Your task to perform on an android device: turn off priority inbox in the gmail app Image 0: 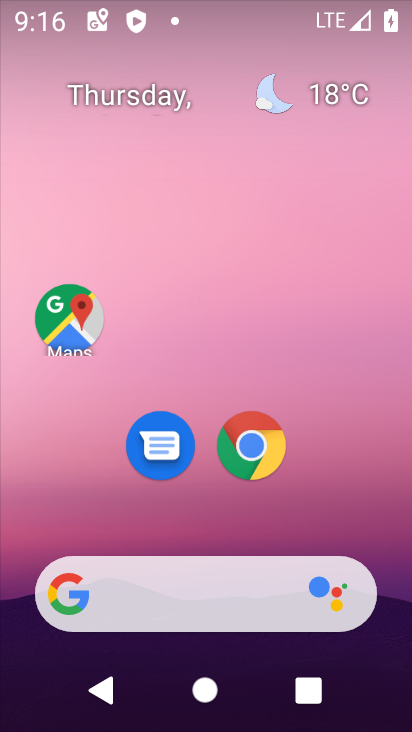
Step 0: drag from (386, 545) to (292, 170)
Your task to perform on an android device: turn off priority inbox in the gmail app Image 1: 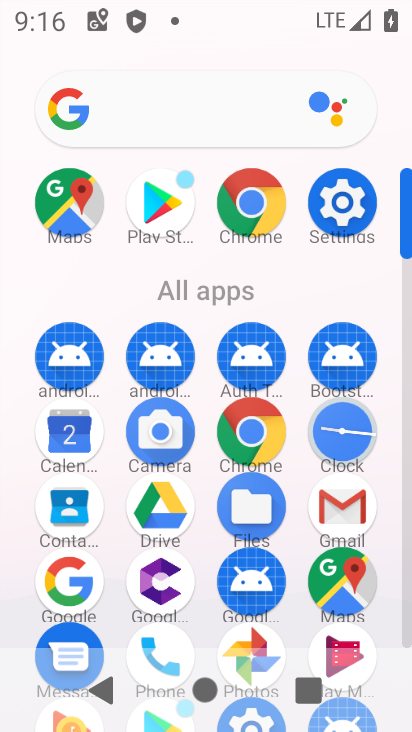
Step 1: click (333, 517)
Your task to perform on an android device: turn off priority inbox in the gmail app Image 2: 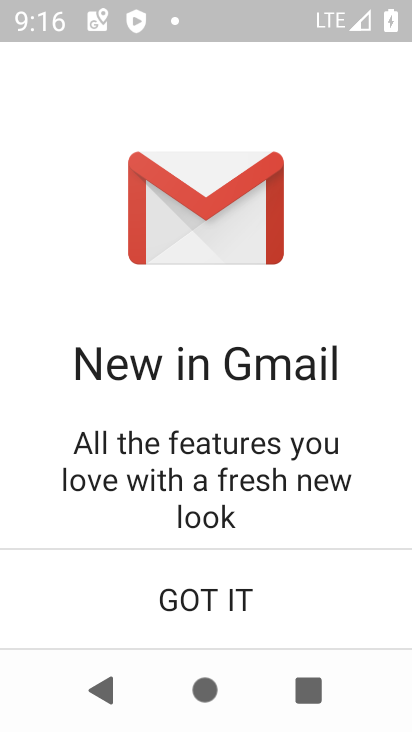
Step 2: click (207, 595)
Your task to perform on an android device: turn off priority inbox in the gmail app Image 3: 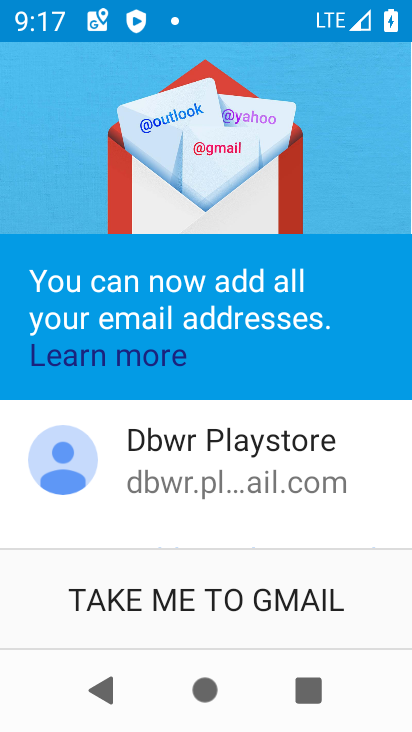
Step 3: click (208, 605)
Your task to perform on an android device: turn off priority inbox in the gmail app Image 4: 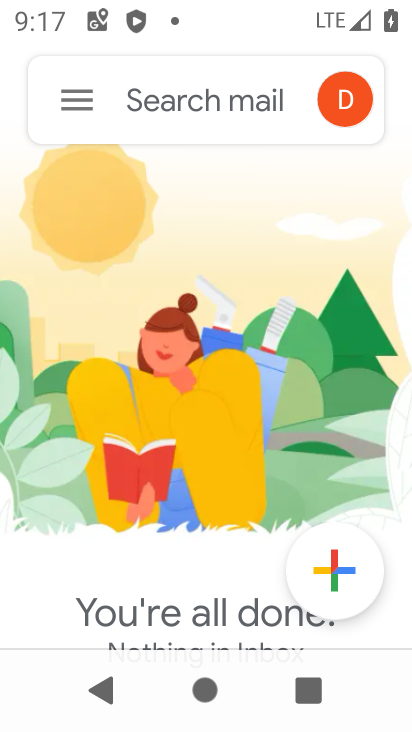
Step 4: click (77, 88)
Your task to perform on an android device: turn off priority inbox in the gmail app Image 5: 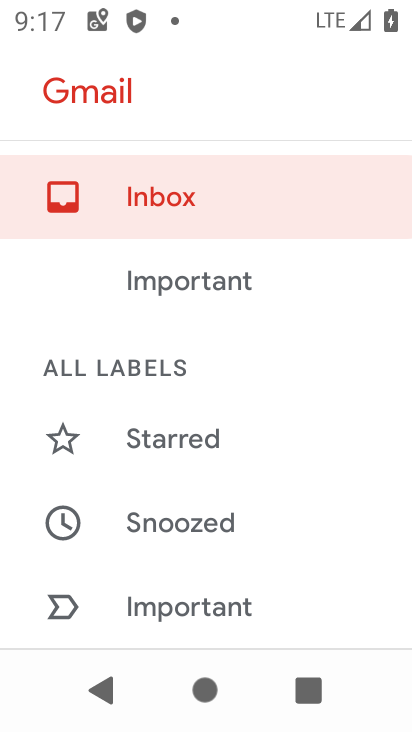
Step 5: drag from (239, 580) to (198, 189)
Your task to perform on an android device: turn off priority inbox in the gmail app Image 6: 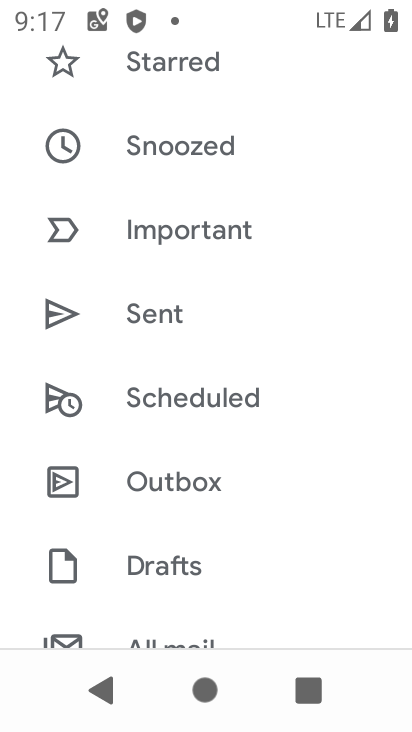
Step 6: drag from (250, 562) to (204, 211)
Your task to perform on an android device: turn off priority inbox in the gmail app Image 7: 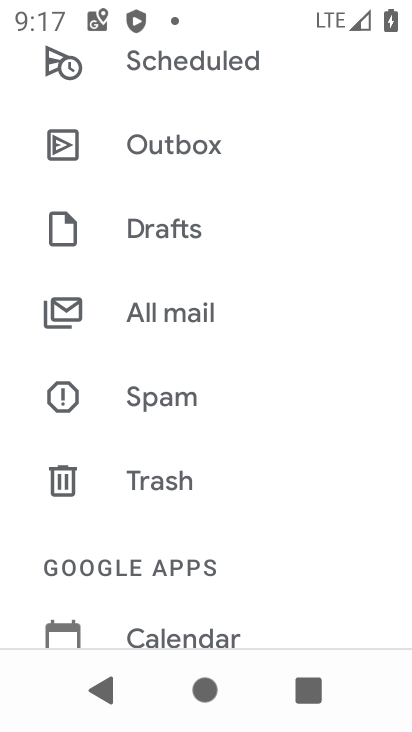
Step 7: drag from (241, 526) to (198, 222)
Your task to perform on an android device: turn off priority inbox in the gmail app Image 8: 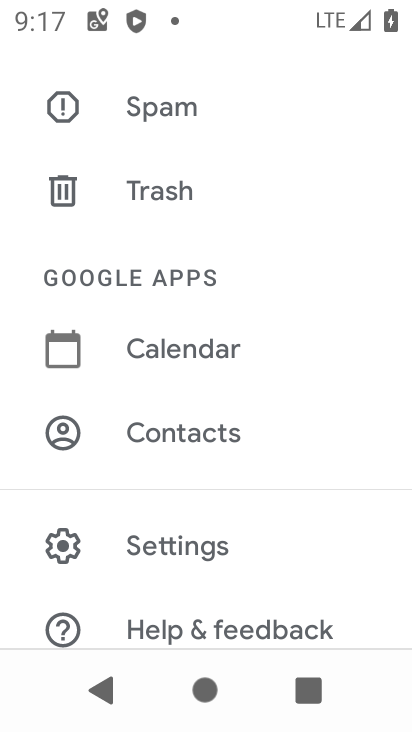
Step 8: click (186, 537)
Your task to perform on an android device: turn off priority inbox in the gmail app Image 9: 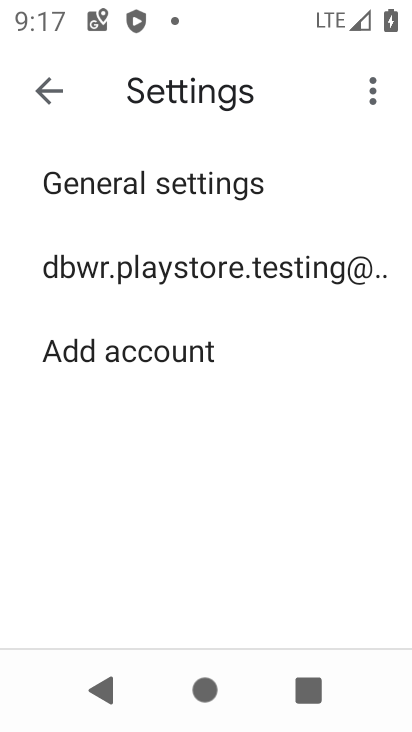
Step 9: click (237, 287)
Your task to perform on an android device: turn off priority inbox in the gmail app Image 10: 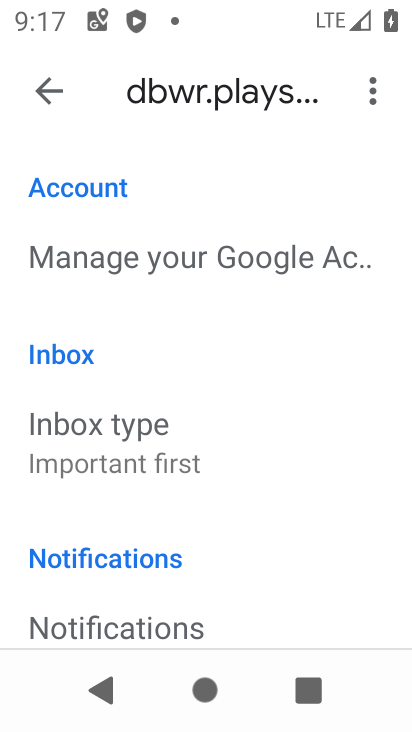
Step 10: click (276, 452)
Your task to perform on an android device: turn off priority inbox in the gmail app Image 11: 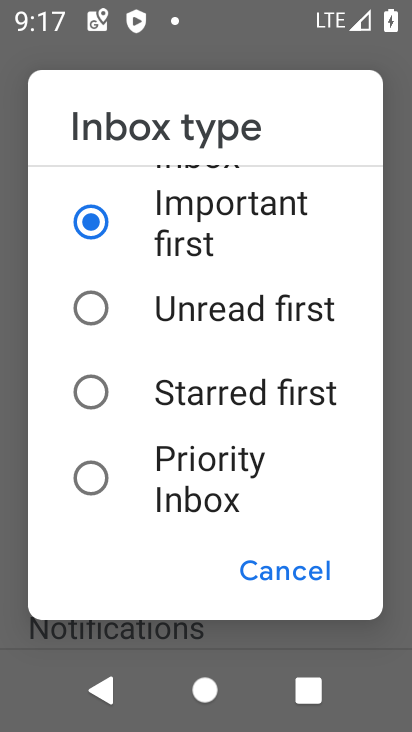
Step 11: task complete